Your task to perform on an android device: Add "razer thresher" to the cart on bestbuy.com, then select checkout. Image 0: 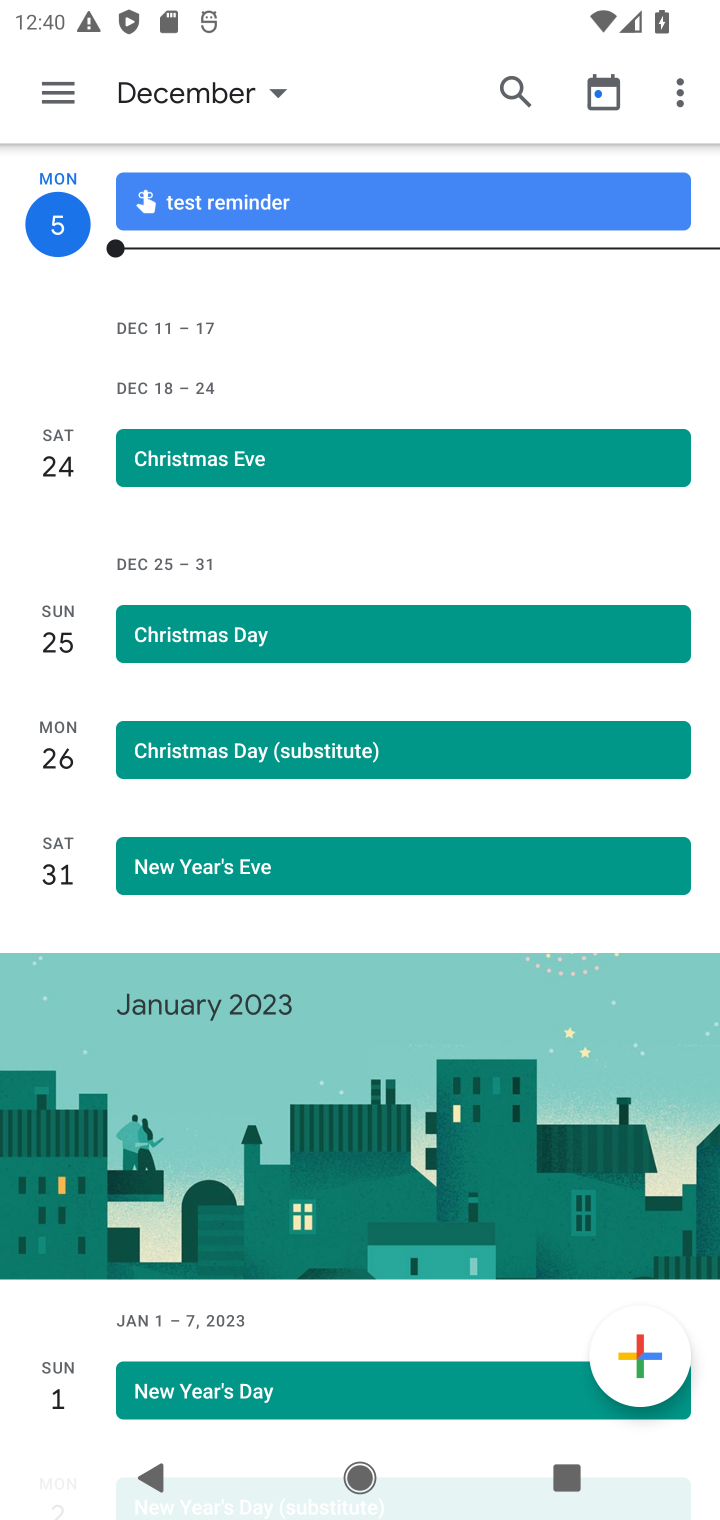
Step 0: press home button
Your task to perform on an android device: Add "razer thresher" to the cart on bestbuy.com, then select checkout. Image 1: 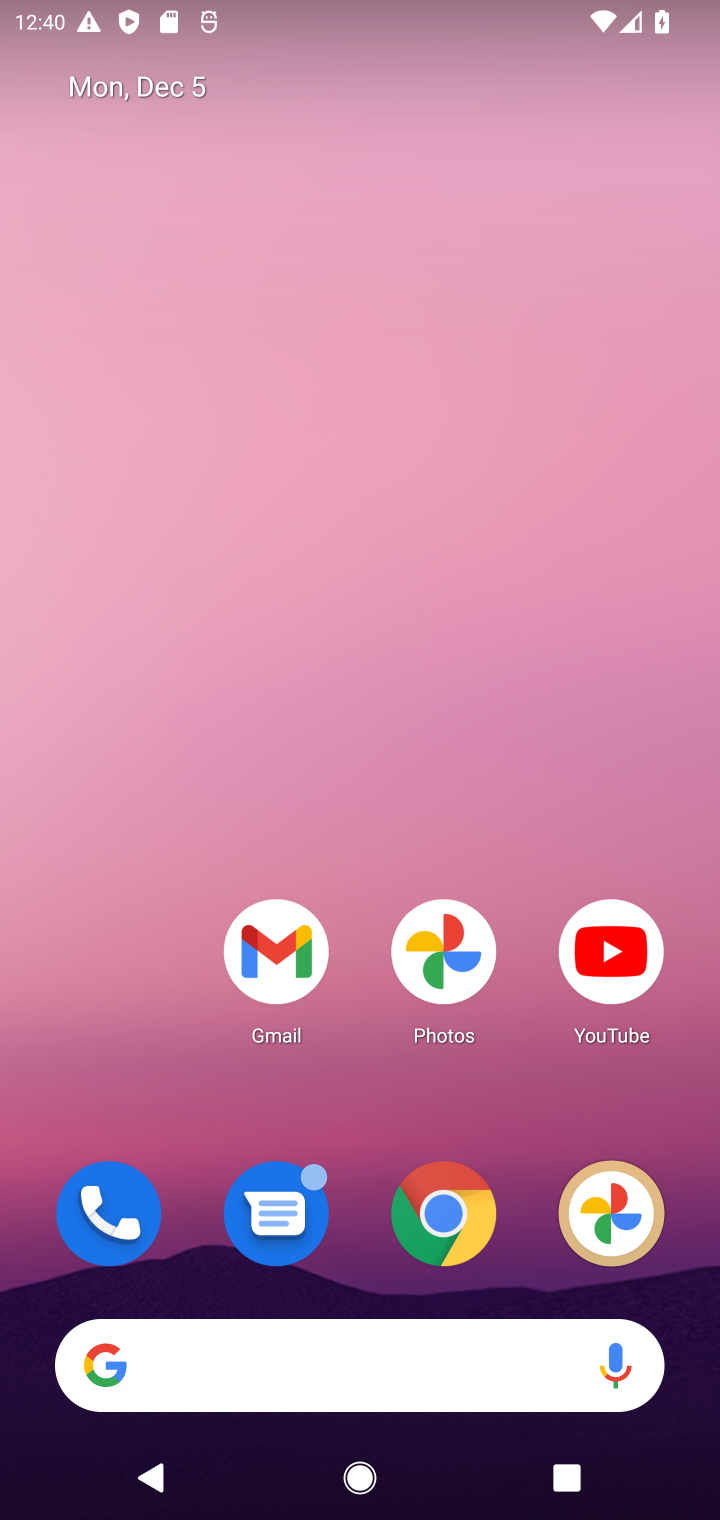
Step 1: click (433, 1238)
Your task to perform on an android device: Add "razer thresher" to the cart on bestbuy.com, then select checkout. Image 2: 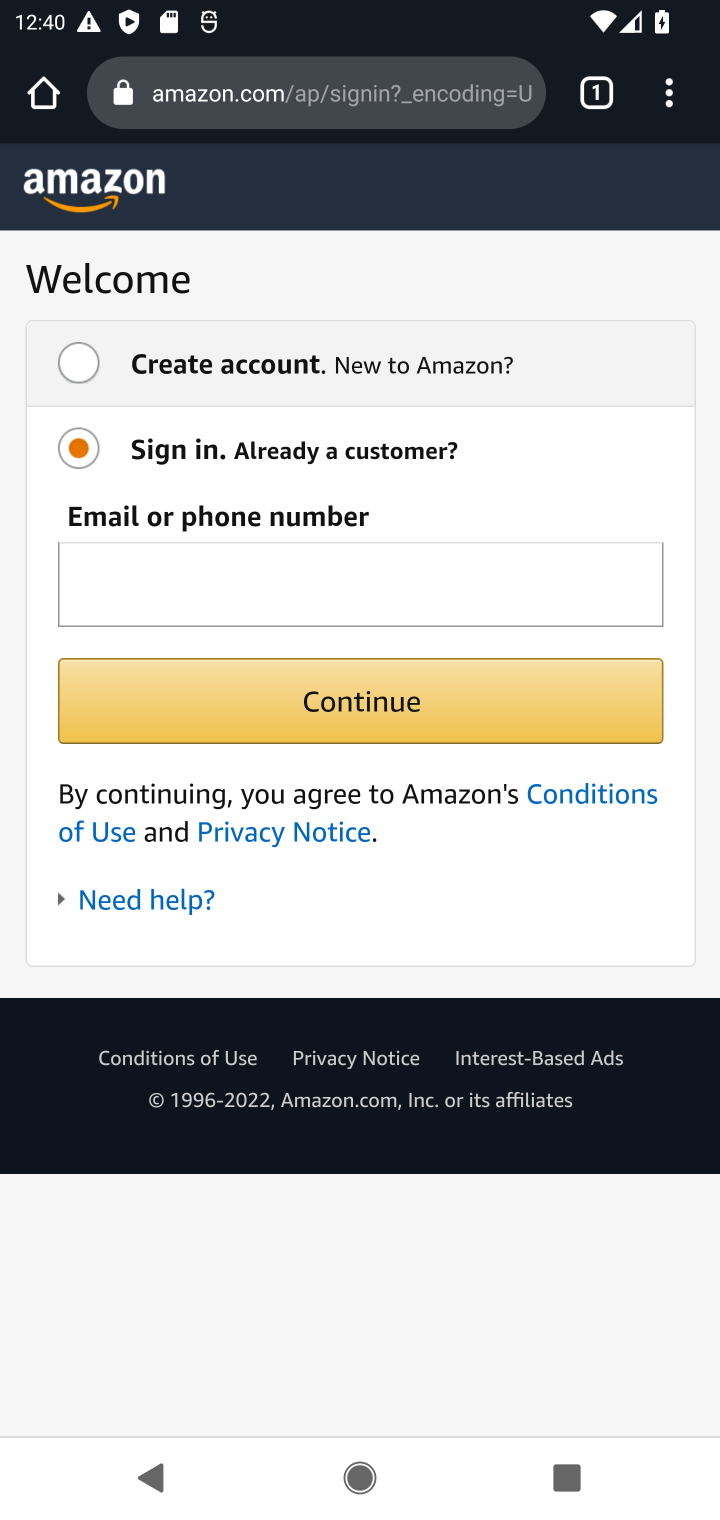
Step 2: click (301, 93)
Your task to perform on an android device: Add "razer thresher" to the cart on bestbuy.com, then select checkout. Image 3: 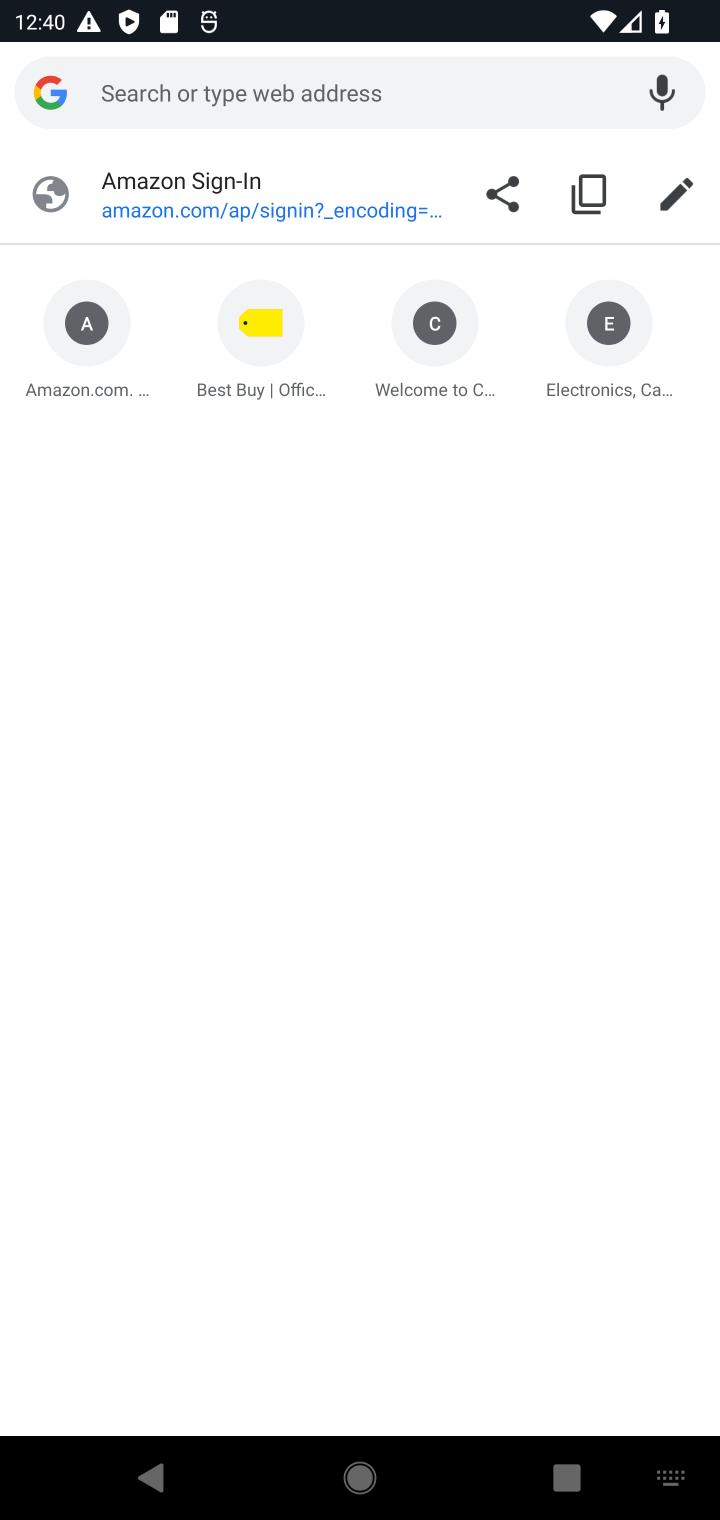
Step 3: click (243, 338)
Your task to perform on an android device: Add "razer thresher" to the cart on bestbuy.com, then select checkout. Image 4: 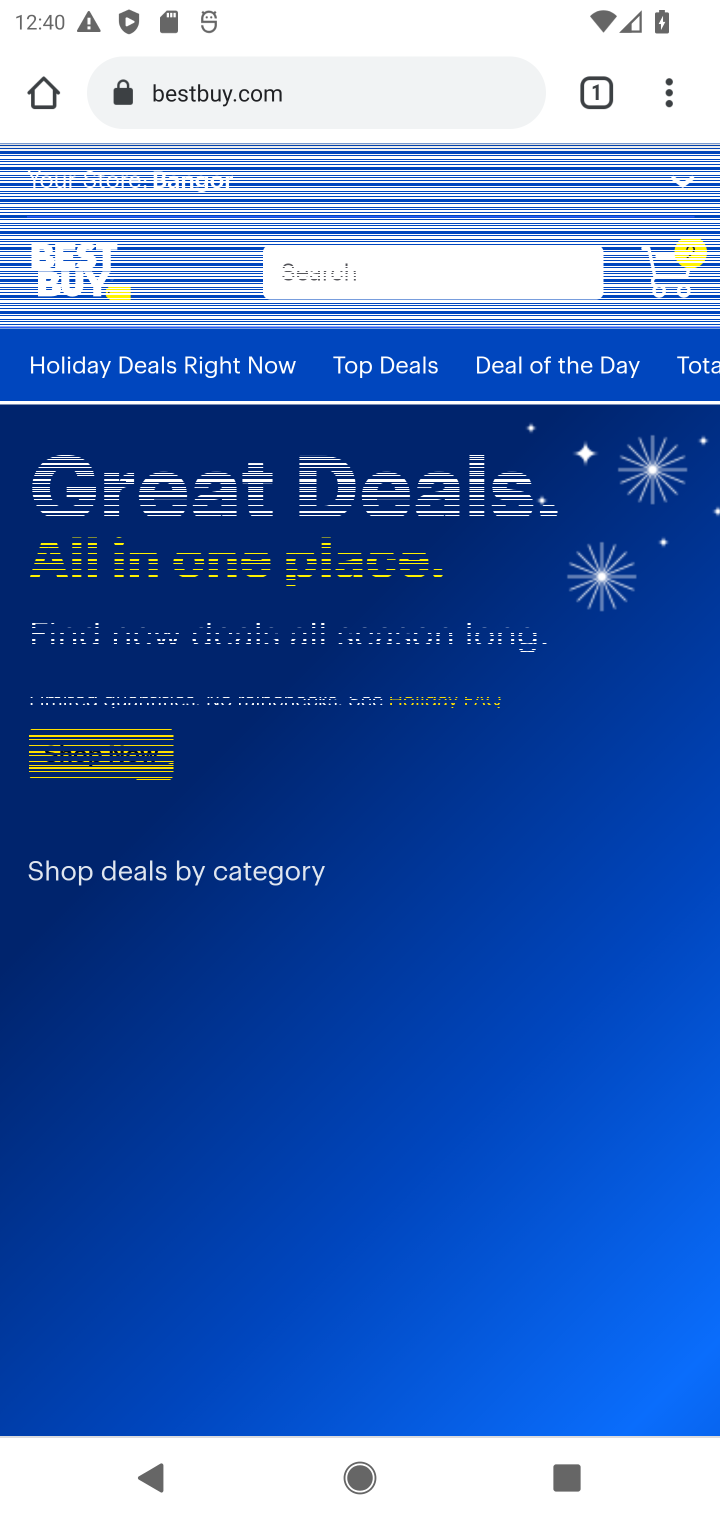
Step 4: click (350, 278)
Your task to perform on an android device: Add "razer thresher" to the cart on bestbuy.com, then select checkout. Image 5: 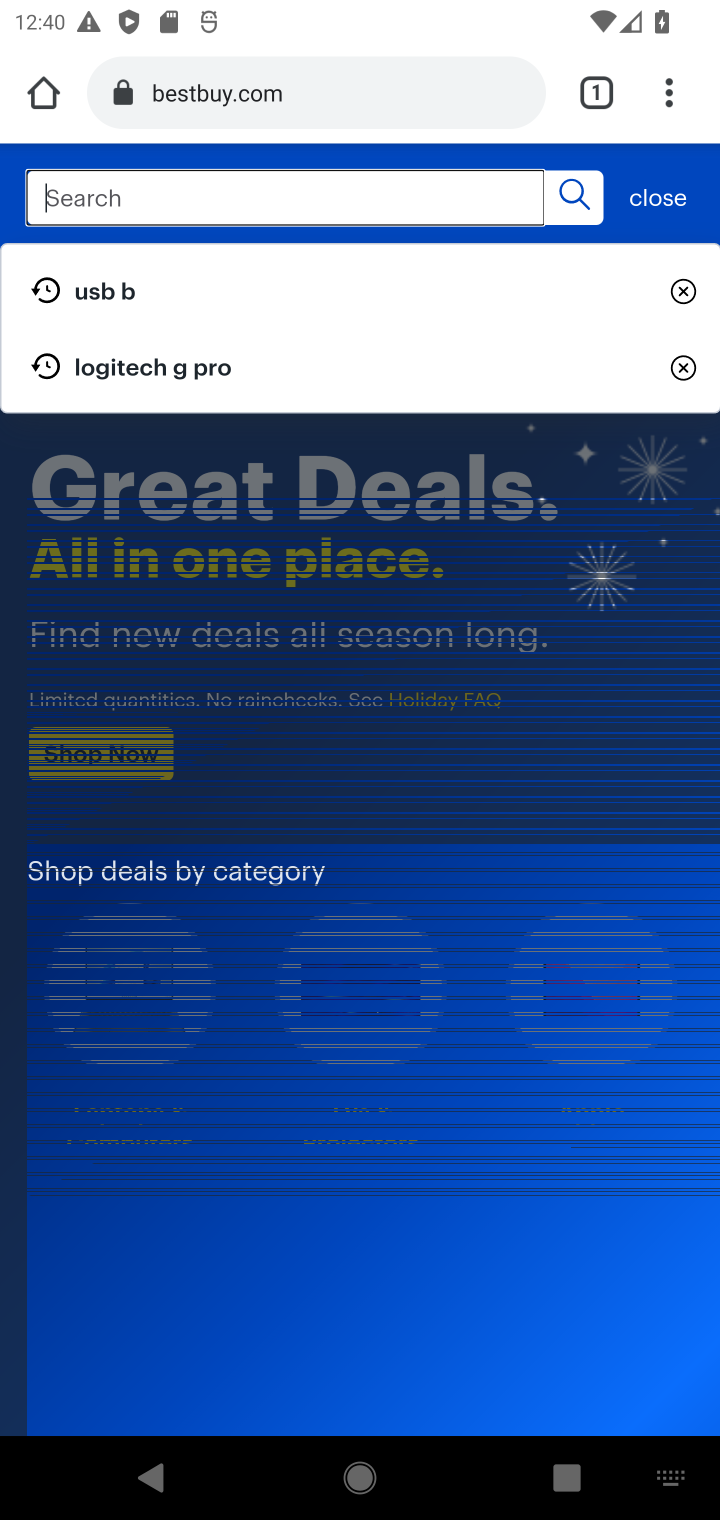
Step 5: type "razer thresher"
Your task to perform on an android device: Add "razer thresher" to the cart on bestbuy.com, then select checkout. Image 6: 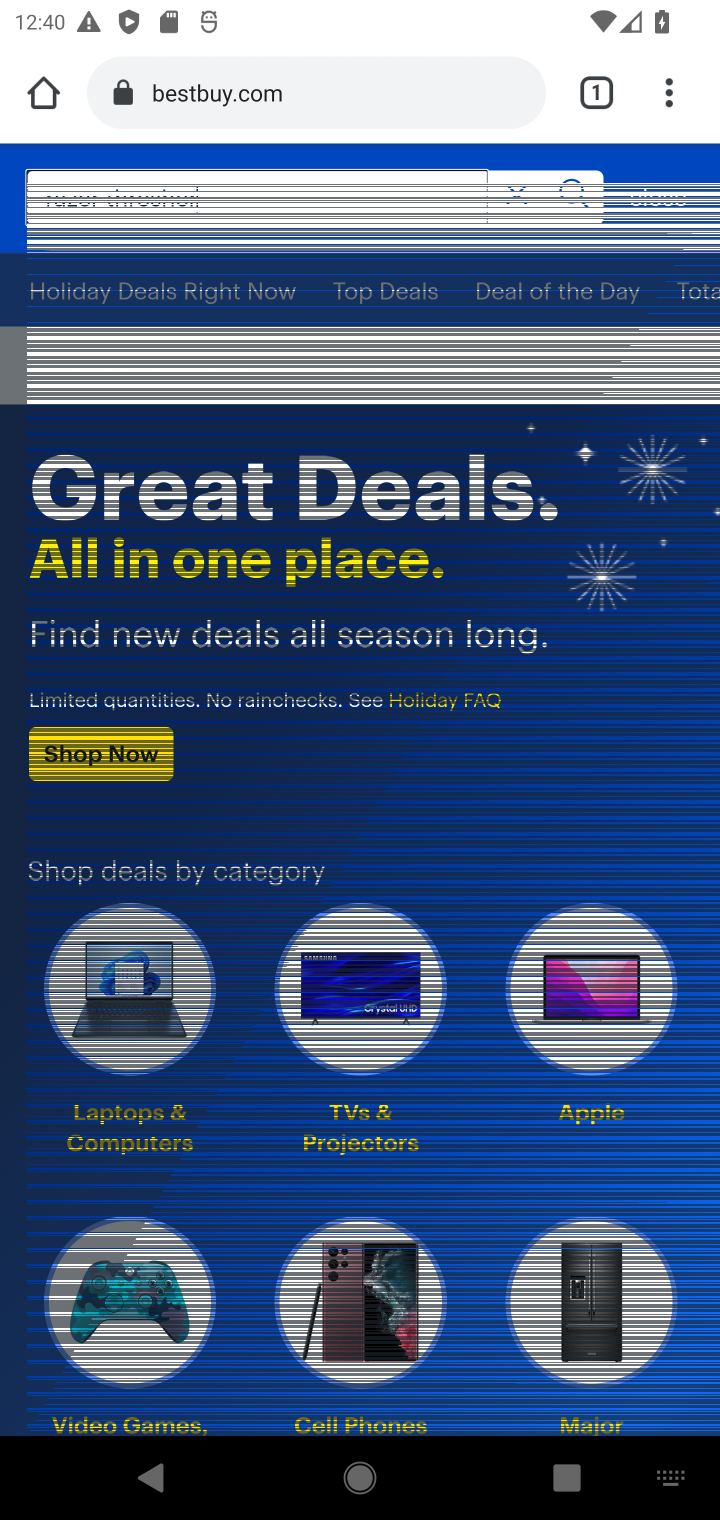
Step 6: click (581, 198)
Your task to perform on an android device: Add "razer thresher" to the cart on bestbuy.com, then select checkout. Image 7: 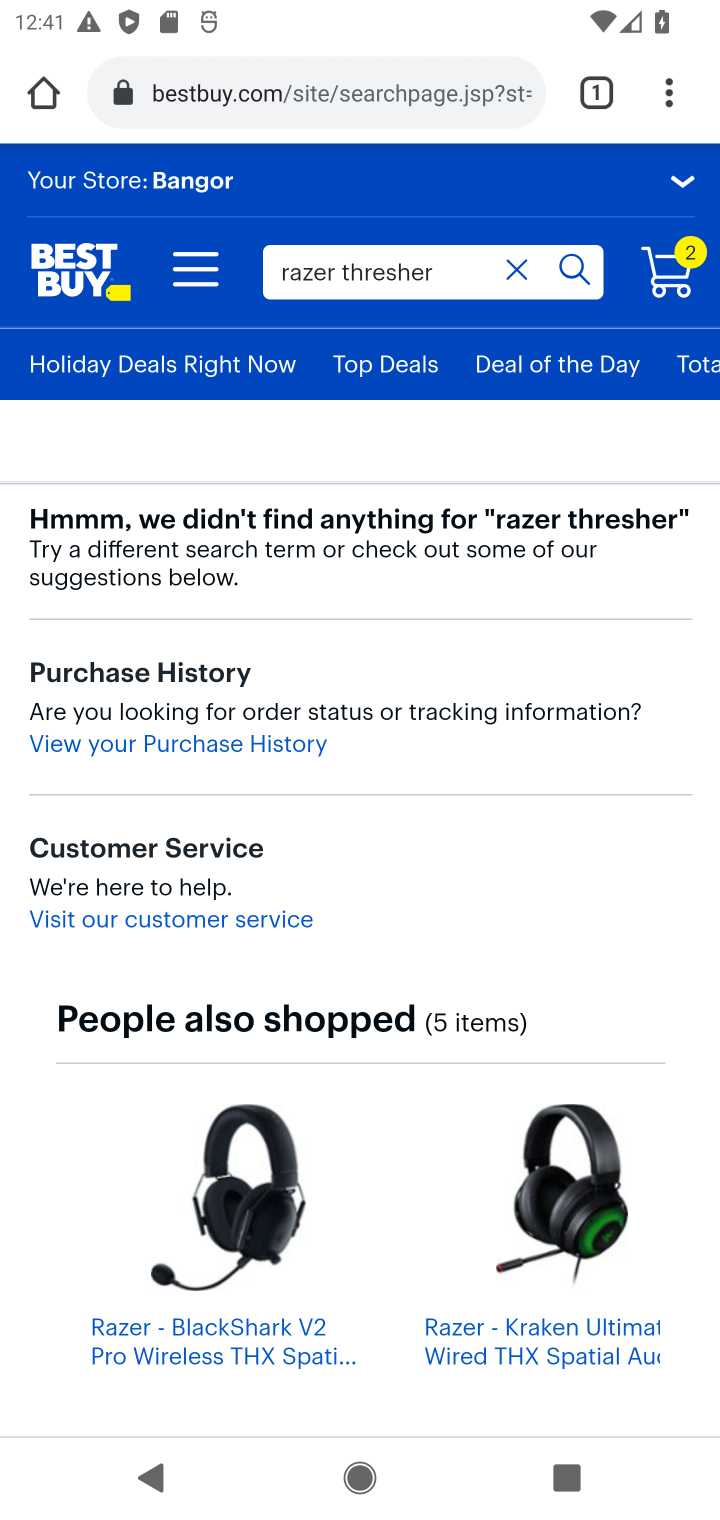
Step 7: task complete